Your task to perform on an android device: check google app version Image 0: 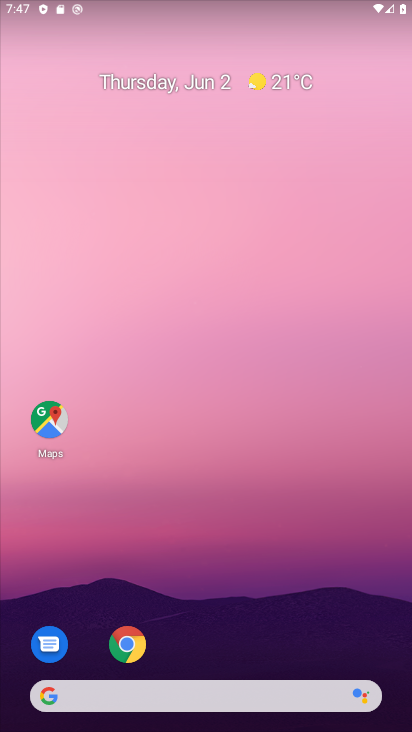
Step 0: drag from (233, 608) to (194, 32)
Your task to perform on an android device: check google app version Image 1: 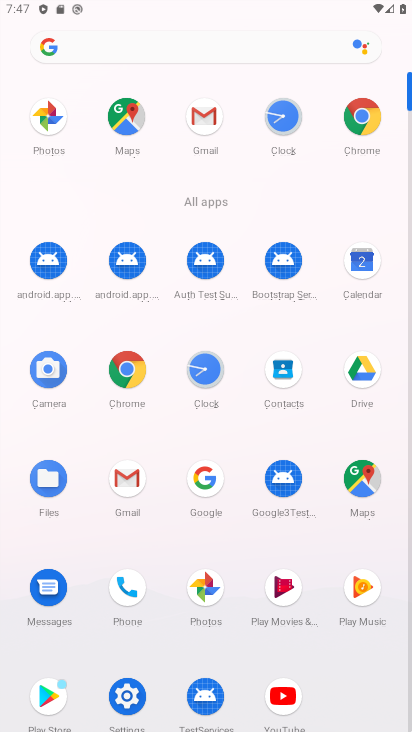
Step 1: drag from (9, 521) to (12, 245)
Your task to perform on an android device: check google app version Image 2: 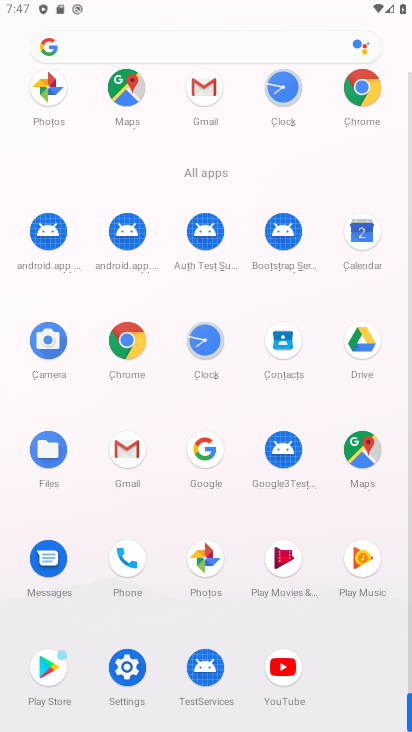
Step 2: click (206, 447)
Your task to perform on an android device: check google app version Image 3: 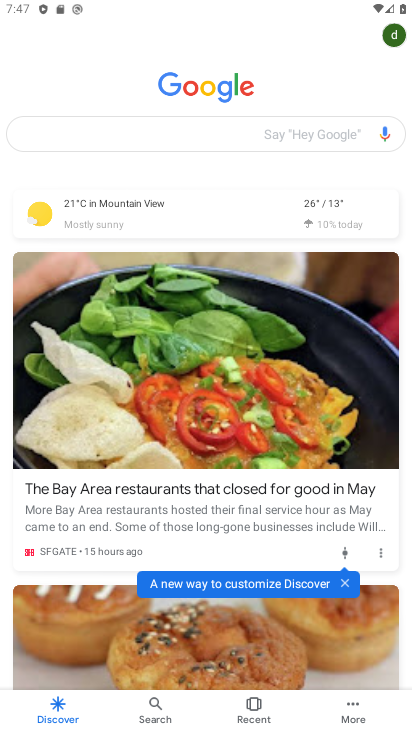
Step 3: click (392, 28)
Your task to perform on an android device: check google app version Image 4: 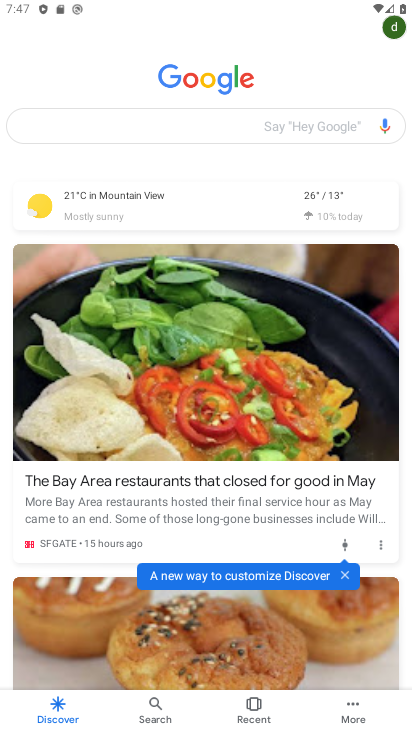
Step 4: click (389, 29)
Your task to perform on an android device: check google app version Image 5: 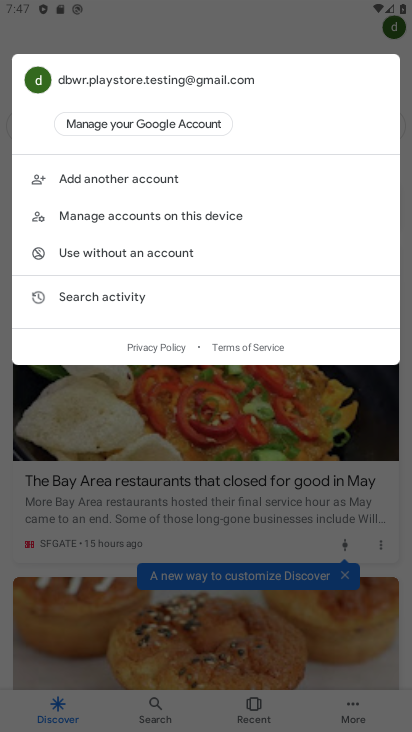
Step 5: click (166, 394)
Your task to perform on an android device: check google app version Image 6: 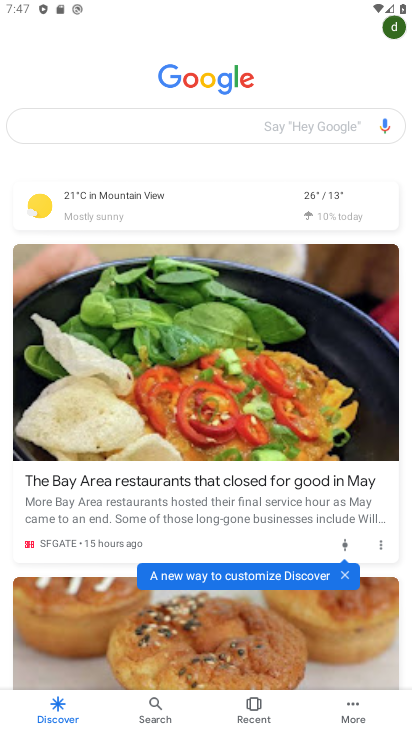
Step 6: click (350, 701)
Your task to perform on an android device: check google app version Image 7: 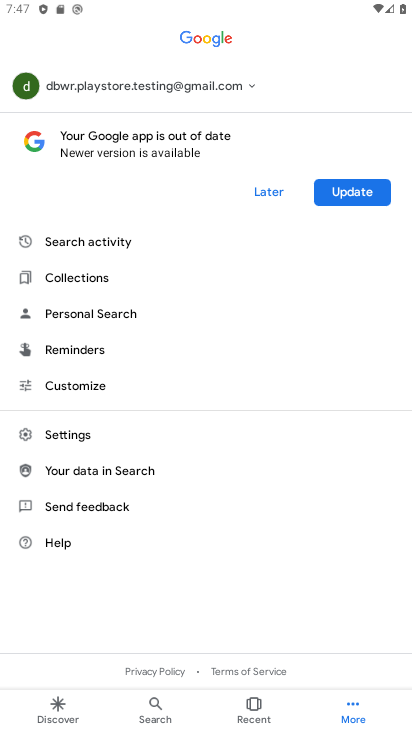
Step 7: click (75, 429)
Your task to perform on an android device: check google app version Image 8: 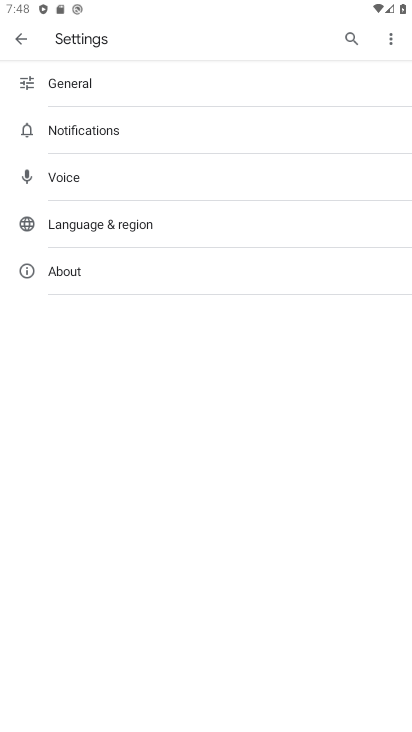
Step 8: click (86, 261)
Your task to perform on an android device: check google app version Image 9: 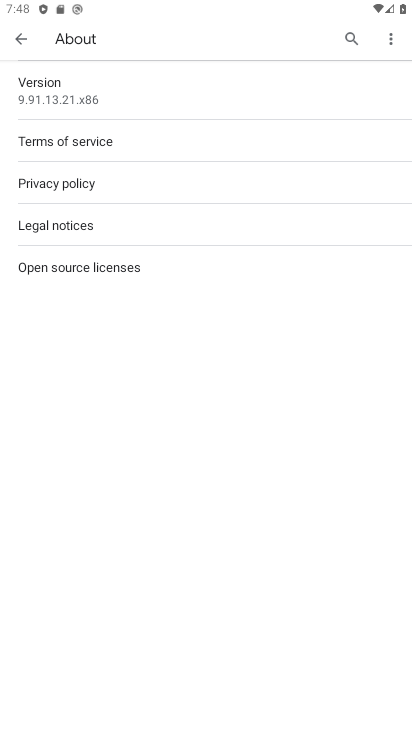
Step 9: task complete